Your task to perform on an android device: change text size in settings app Image 0: 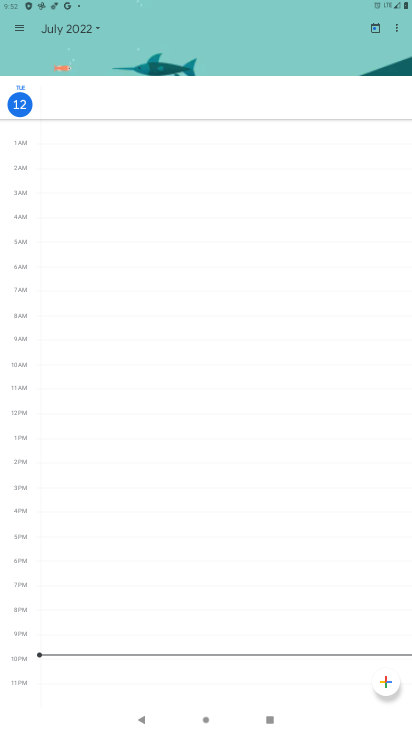
Step 0: press home button
Your task to perform on an android device: change text size in settings app Image 1: 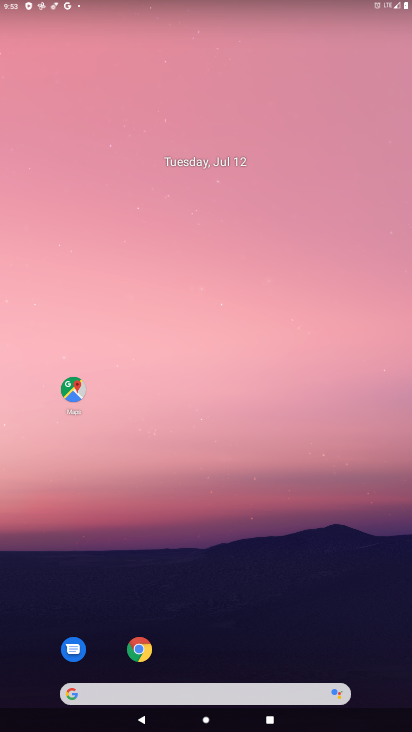
Step 1: drag from (262, 652) to (242, 94)
Your task to perform on an android device: change text size in settings app Image 2: 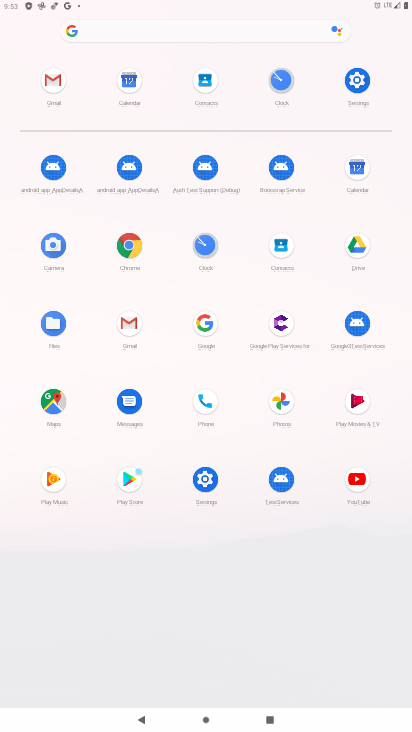
Step 2: click (353, 91)
Your task to perform on an android device: change text size in settings app Image 3: 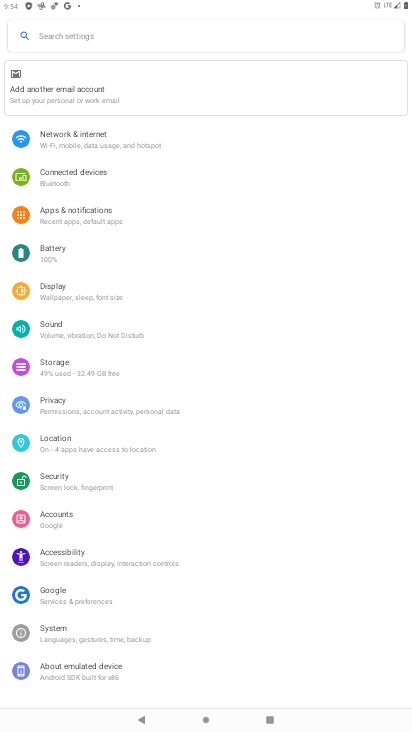
Step 3: click (115, 308)
Your task to perform on an android device: change text size in settings app Image 4: 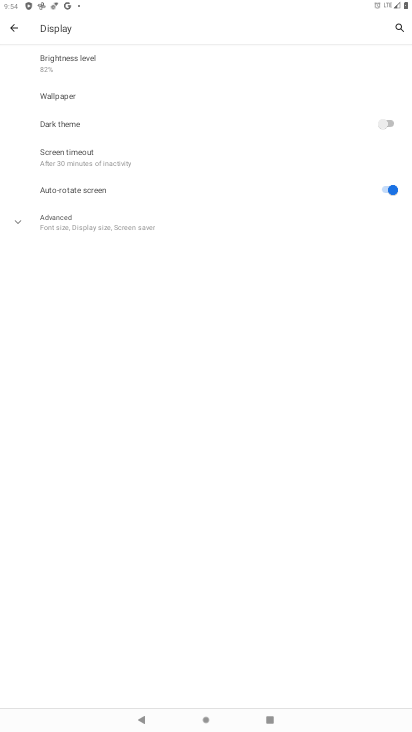
Step 4: click (166, 239)
Your task to perform on an android device: change text size in settings app Image 5: 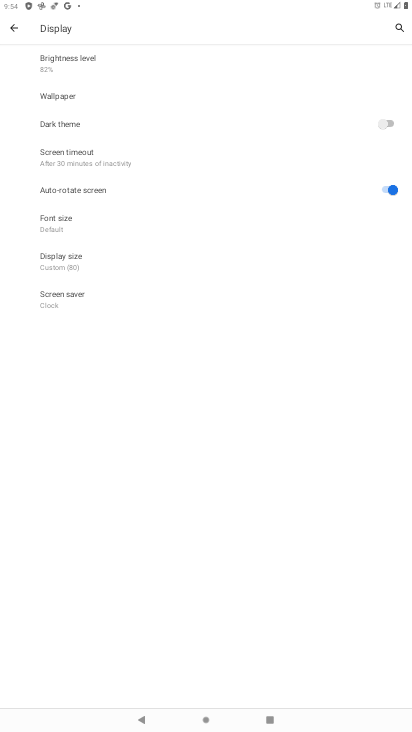
Step 5: click (143, 233)
Your task to perform on an android device: change text size in settings app Image 6: 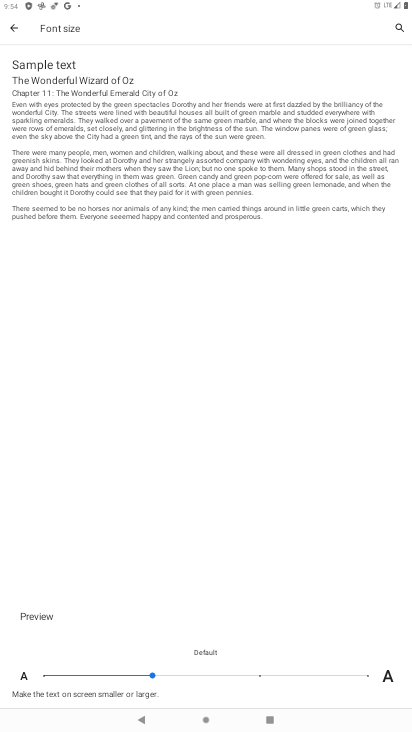
Step 6: click (370, 673)
Your task to perform on an android device: change text size in settings app Image 7: 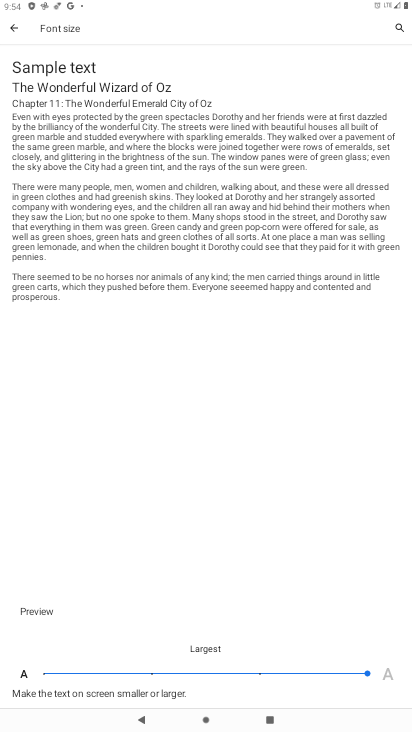
Step 7: click (10, 20)
Your task to perform on an android device: change text size in settings app Image 8: 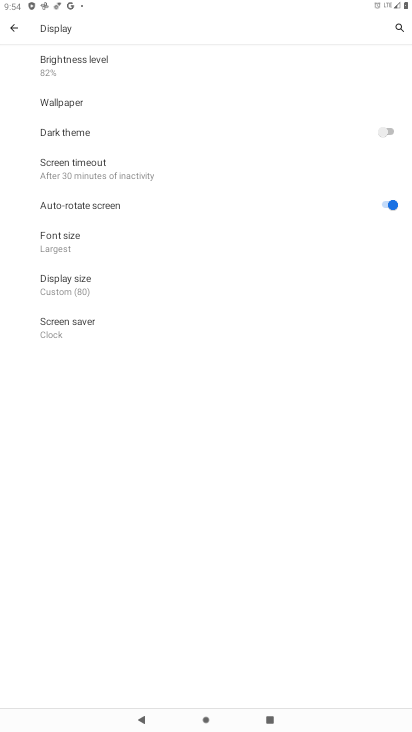
Step 8: task complete